Your task to perform on an android device: turn on improve location accuracy Image 0: 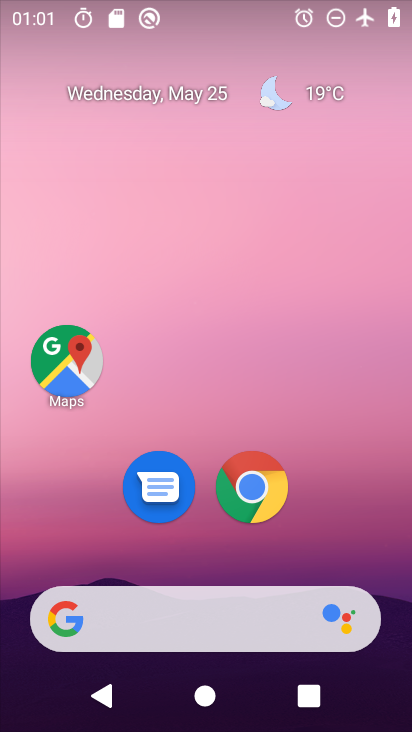
Step 0: drag from (344, 576) to (354, 14)
Your task to perform on an android device: turn on improve location accuracy Image 1: 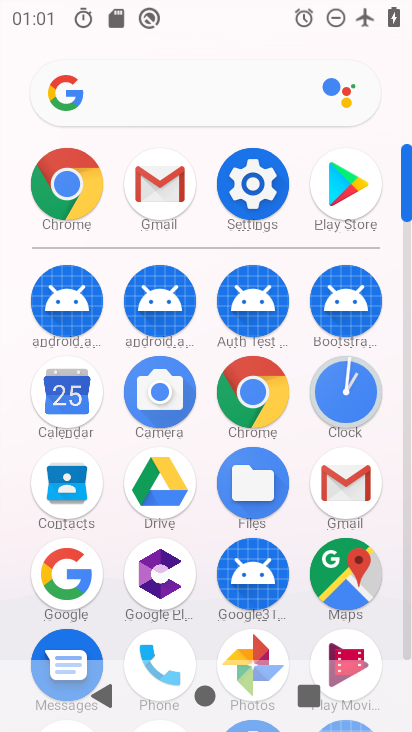
Step 1: click (255, 193)
Your task to perform on an android device: turn on improve location accuracy Image 2: 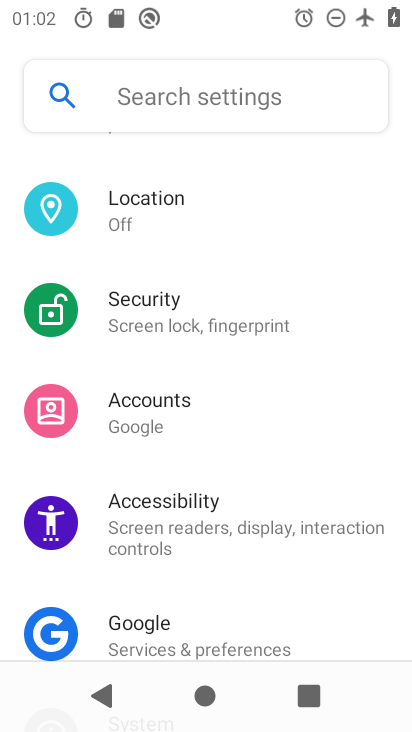
Step 2: click (127, 215)
Your task to perform on an android device: turn on improve location accuracy Image 3: 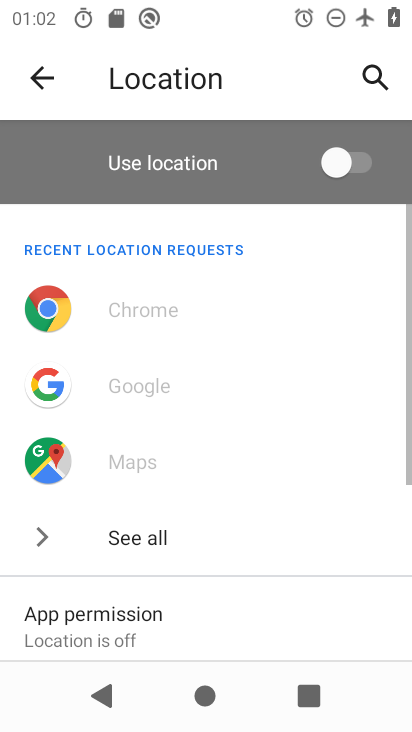
Step 3: drag from (222, 587) to (234, 202)
Your task to perform on an android device: turn on improve location accuracy Image 4: 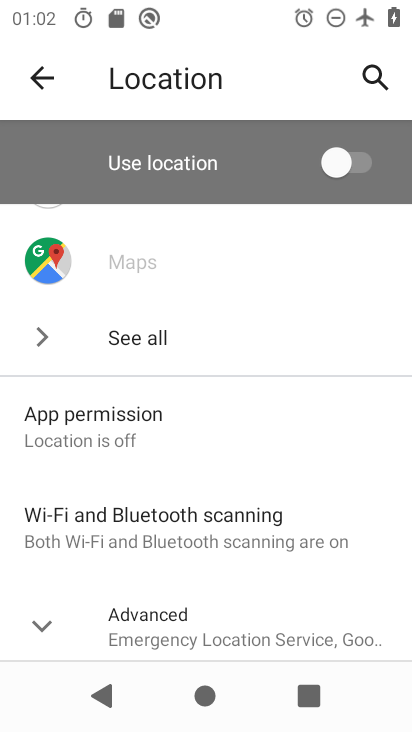
Step 4: drag from (169, 531) to (190, 233)
Your task to perform on an android device: turn on improve location accuracy Image 5: 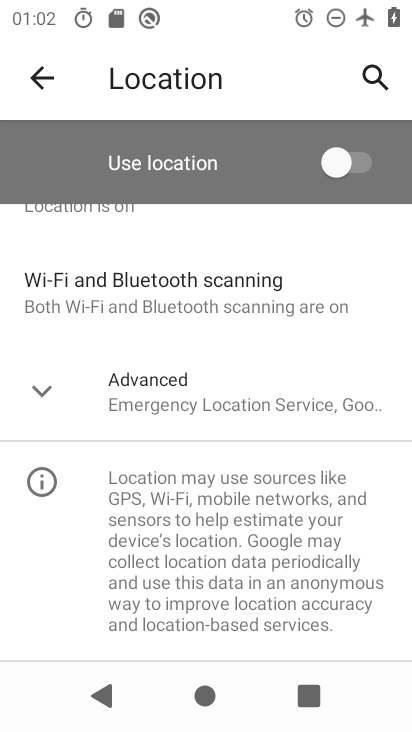
Step 5: click (37, 403)
Your task to perform on an android device: turn on improve location accuracy Image 6: 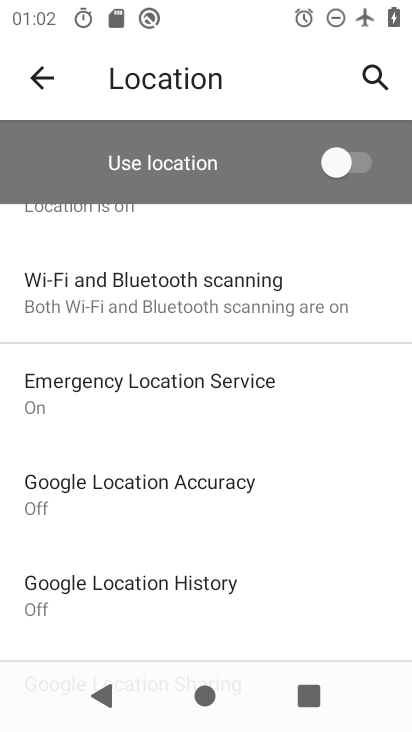
Step 6: click (128, 484)
Your task to perform on an android device: turn on improve location accuracy Image 7: 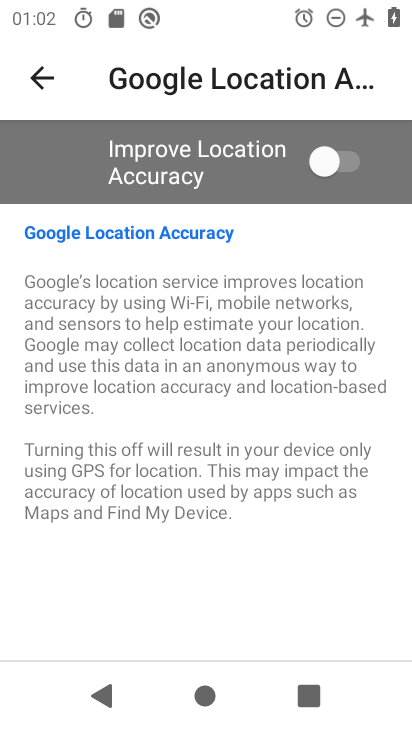
Step 7: click (321, 170)
Your task to perform on an android device: turn on improve location accuracy Image 8: 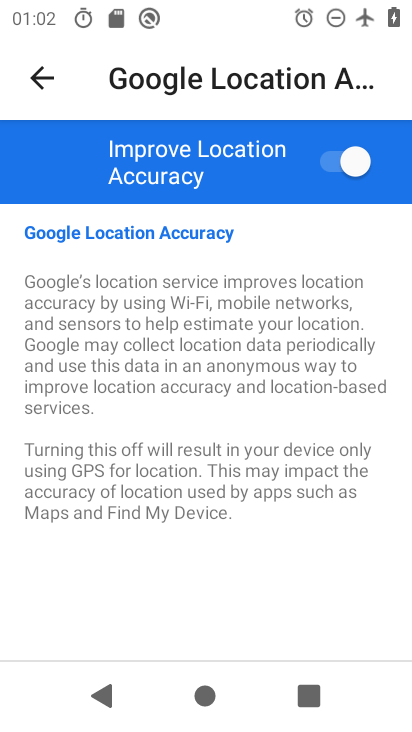
Step 8: task complete